Your task to perform on an android device: empty trash in google photos Image 0: 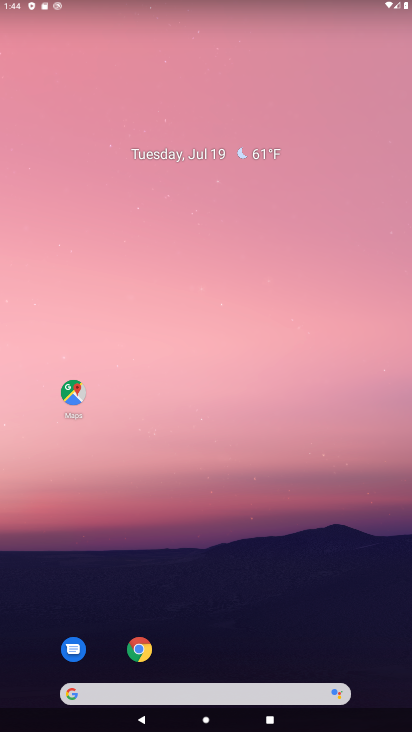
Step 0: drag from (290, 602) to (254, 148)
Your task to perform on an android device: empty trash in google photos Image 1: 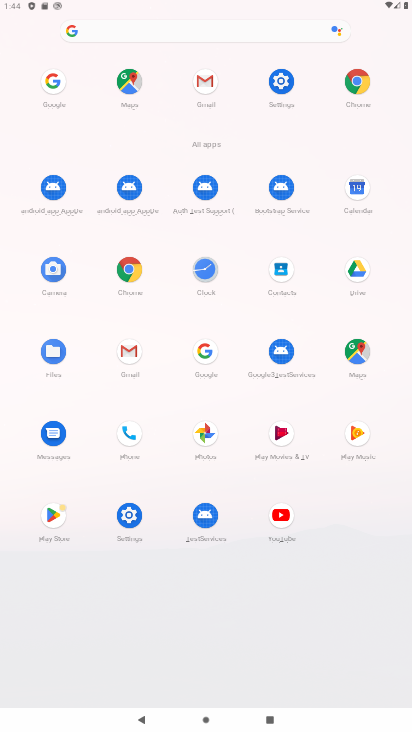
Step 1: click (202, 433)
Your task to perform on an android device: empty trash in google photos Image 2: 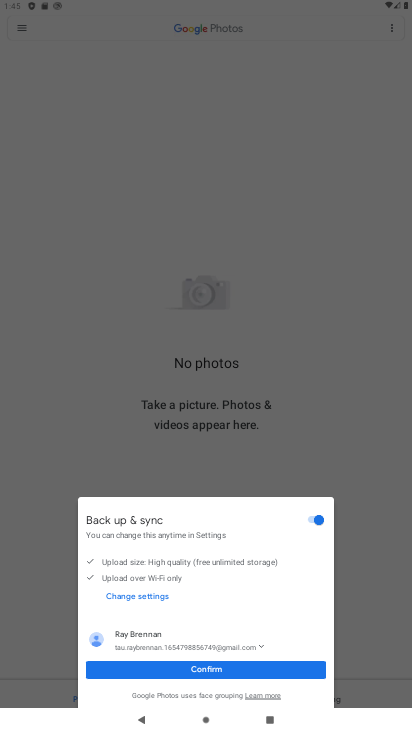
Step 2: click (188, 666)
Your task to perform on an android device: empty trash in google photos Image 3: 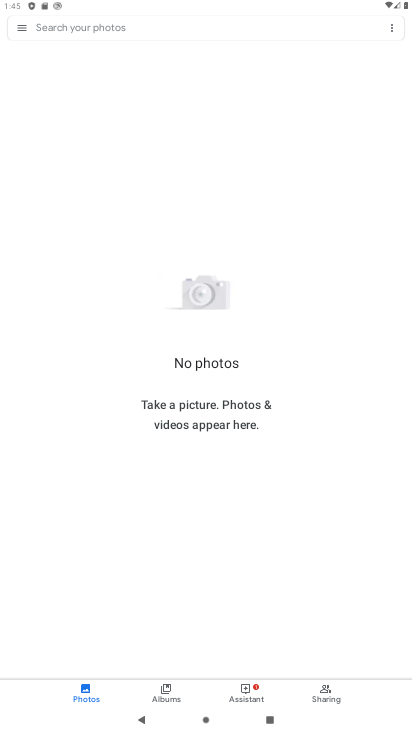
Step 3: click (21, 27)
Your task to perform on an android device: empty trash in google photos Image 4: 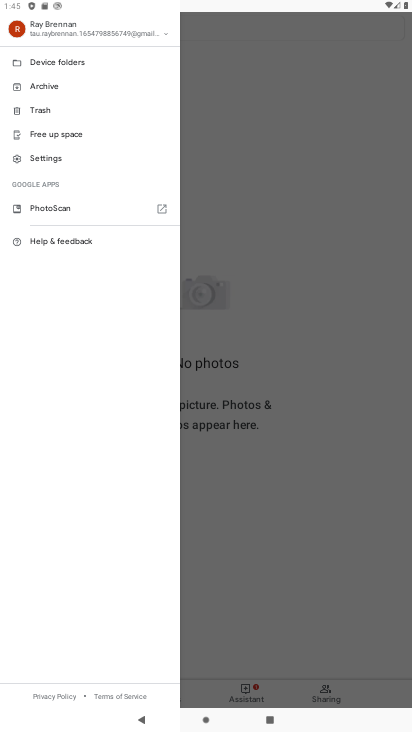
Step 4: click (43, 109)
Your task to perform on an android device: empty trash in google photos Image 5: 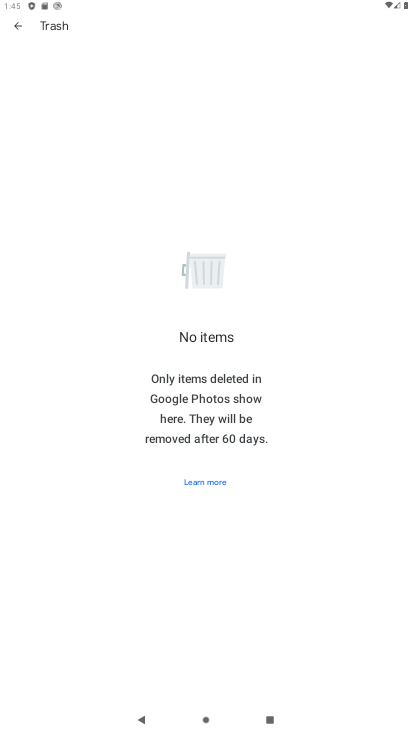
Step 5: task complete